Your task to perform on an android device: Go to wifi settings Image 0: 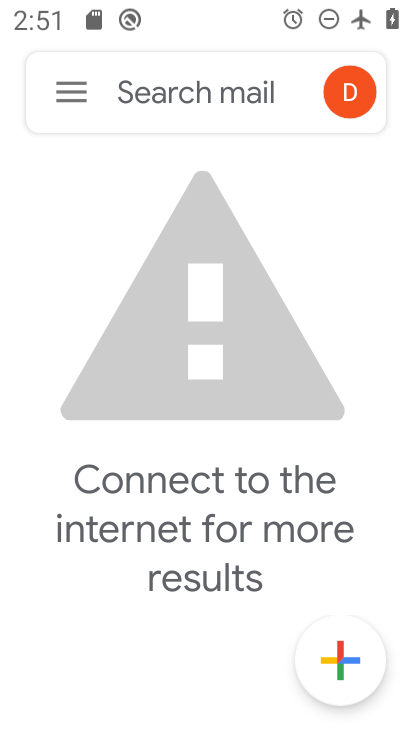
Step 0: press home button
Your task to perform on an android device: Go to wifi settings Image 1: 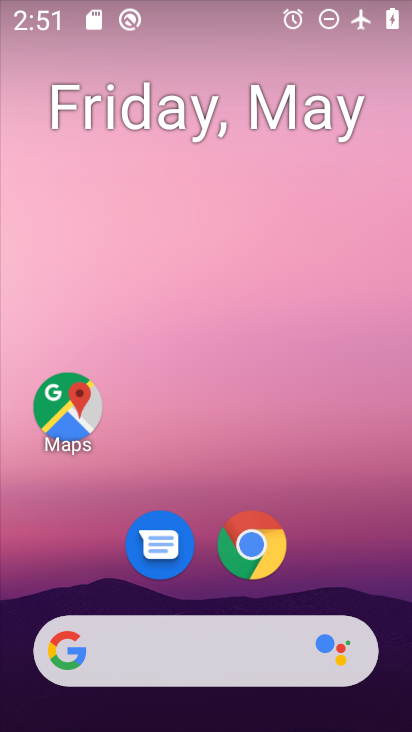
Step 1: drag from (341, 572) to (329, 189)
Your task to perform on an android device: Go to wifi settings Image 2: 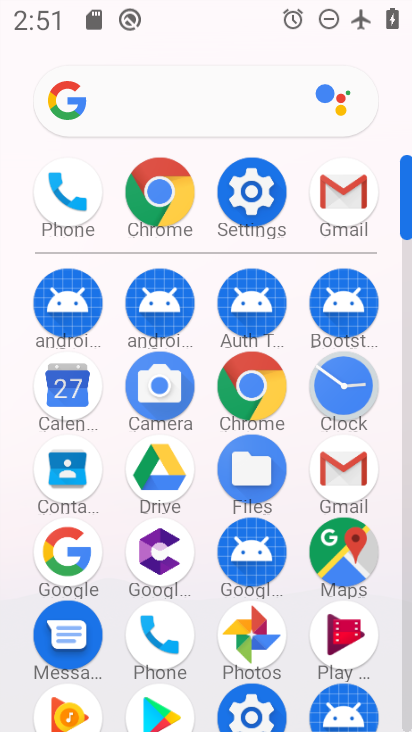
Step 2: click (242, 187)
Your task to perform on an android device: Go to wifi settings Image 3: 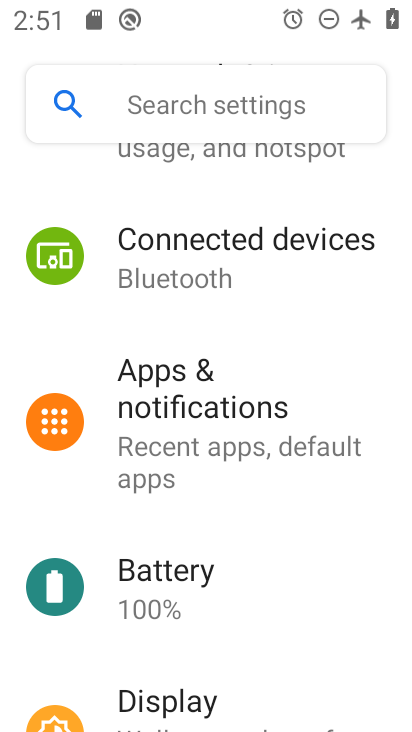
Step 3: drag from (217, 251) to (191, 633)
Your task to perform on an android device: Go to wifi settings Image 4: 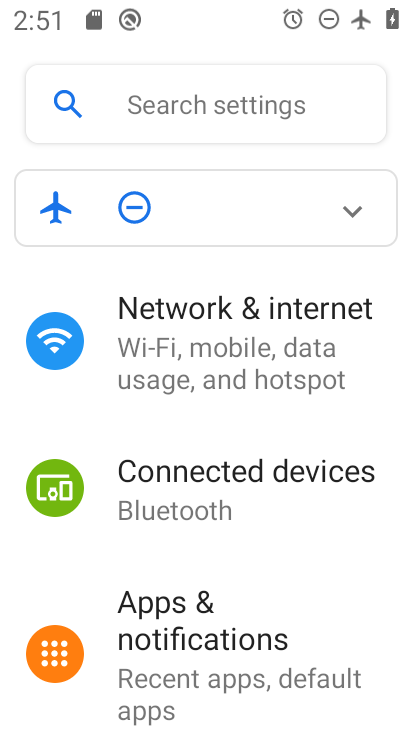
Step 4: click (191, 334)
Your task to perform on an android device: Go to wifi settings Image 5: 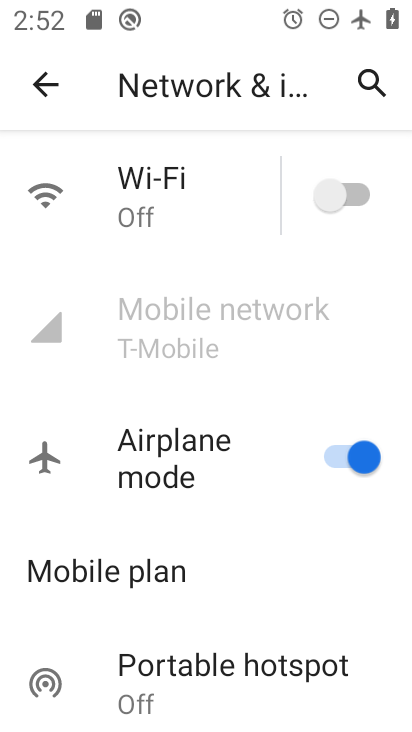
Step 5: task complete